Your task to perform on an android device: Play the last video I watched on Youtube Image 0: 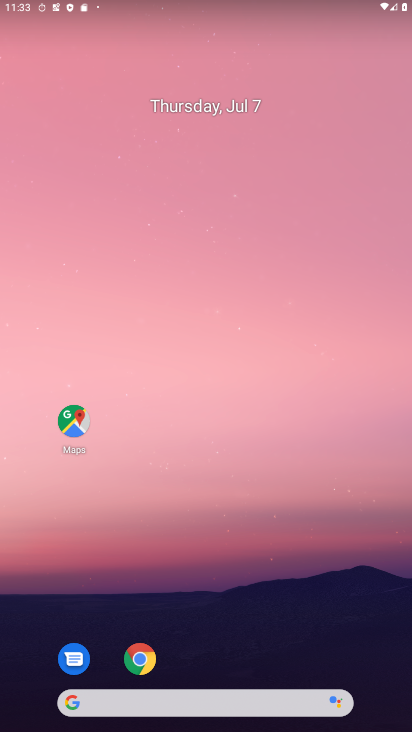
Step 0: press home button
Your task to perform on an android device: Play the last video I watched on Youtube Image 1: 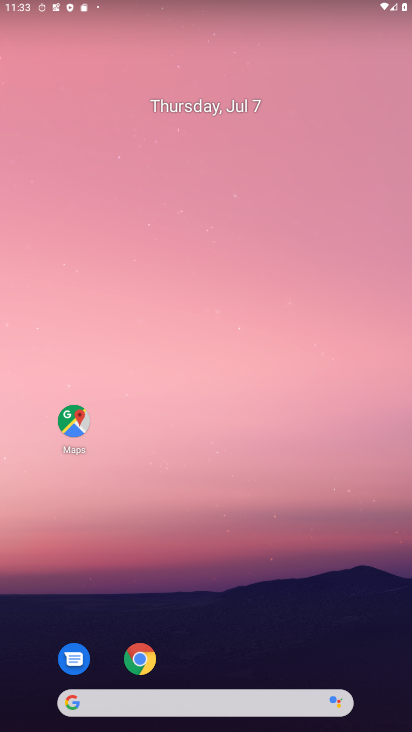
Step 1: drag from (213, 671) to (237, 32)
Your task to perform on an android device: Play the last video I watched on Youtube Image 2: 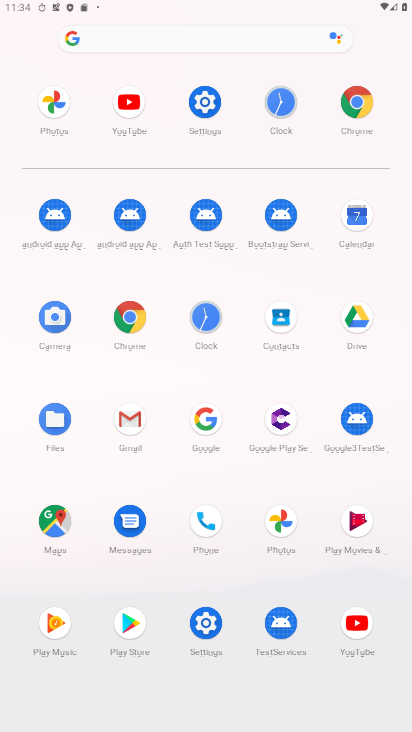
Step 2: click (126, 99)
Your task to perform on an android device: Play the last video I watched on Youtube Image 3: 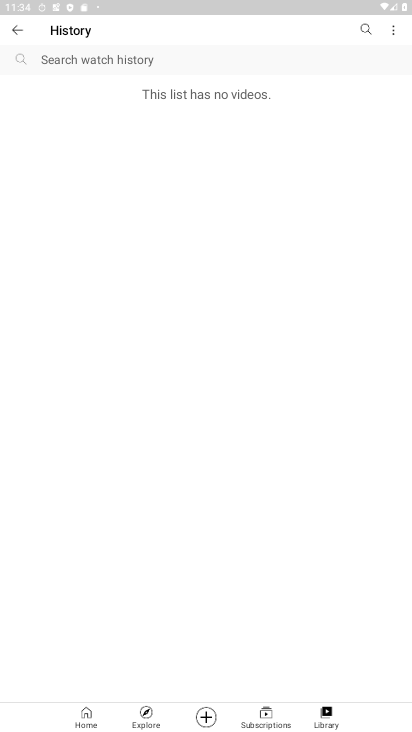
Step 3: task complete